Your task to perform on an android device: Go to Google Image 0: 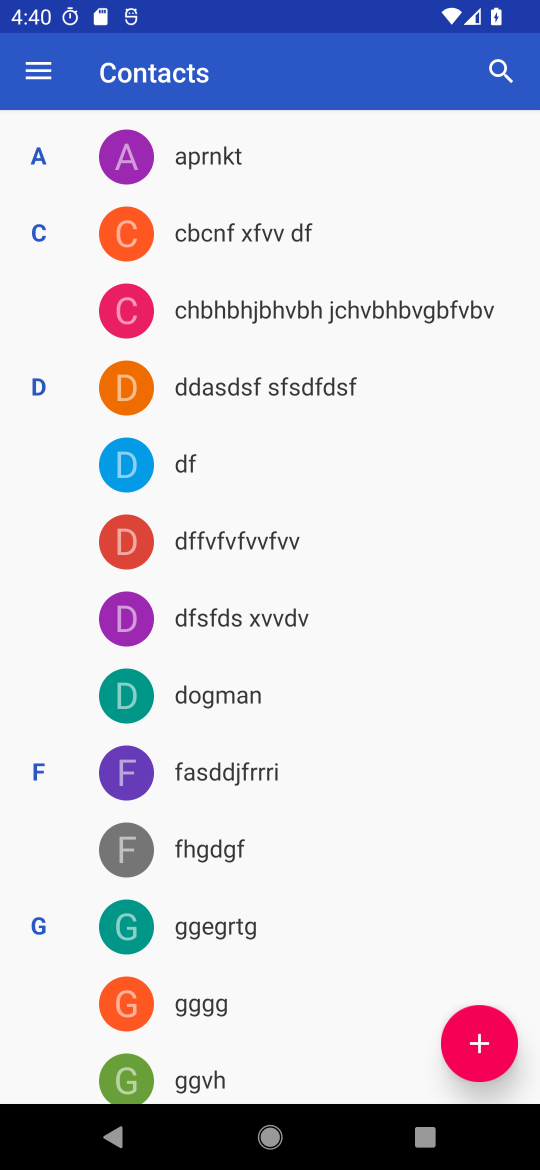
Step 0: press home button
Your task to perform on an android device: Go to Google Image 1: 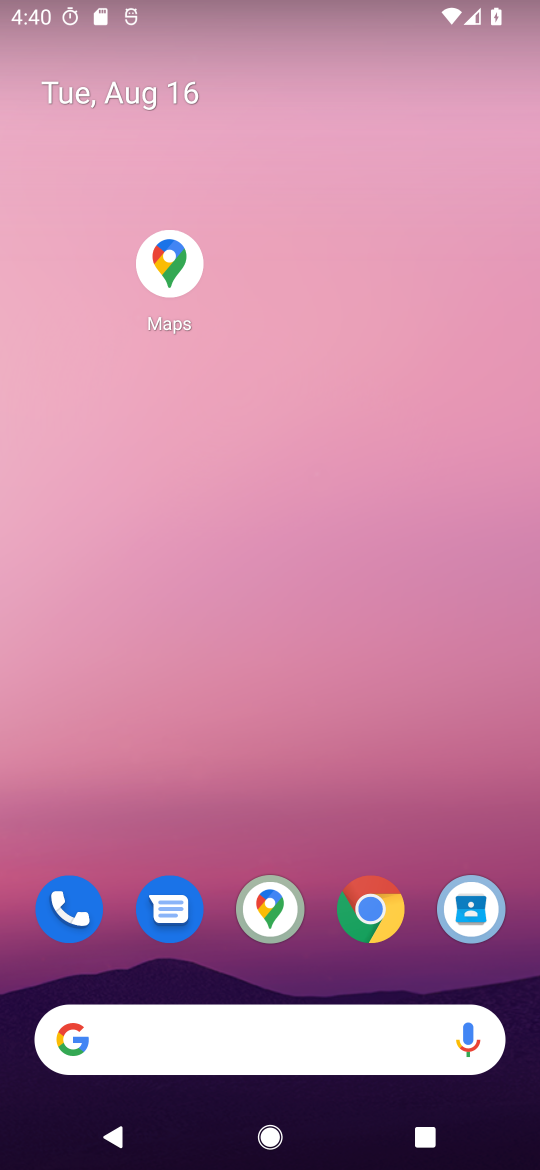
Step 1: click (233, 1017)
Your task to perform on an android device: Go to Google Image 2: 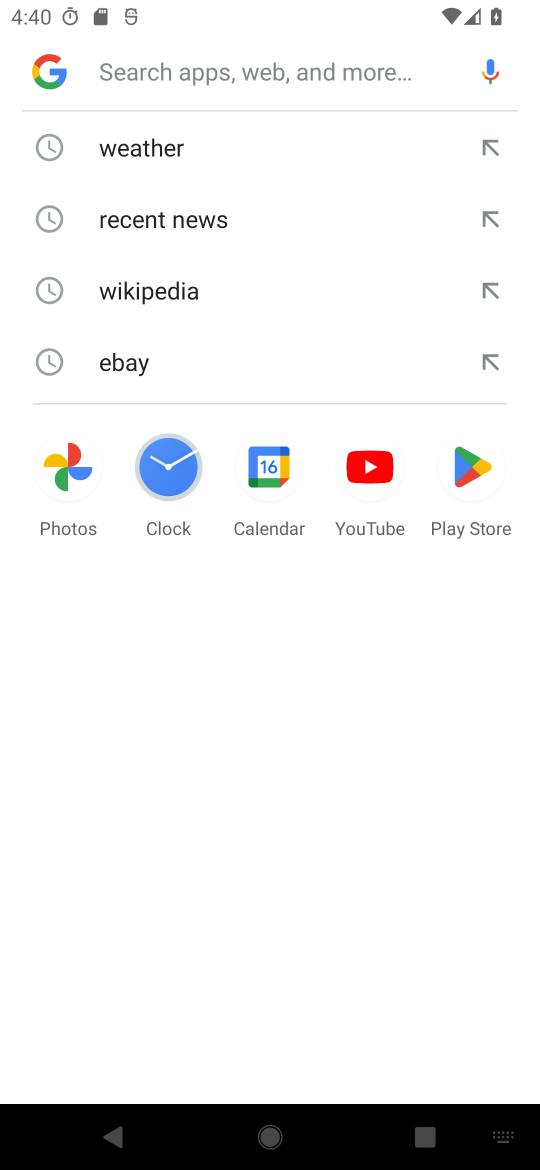
Step 2: task complete